Your task to perform on an android device: Go to Android settings Image 0: 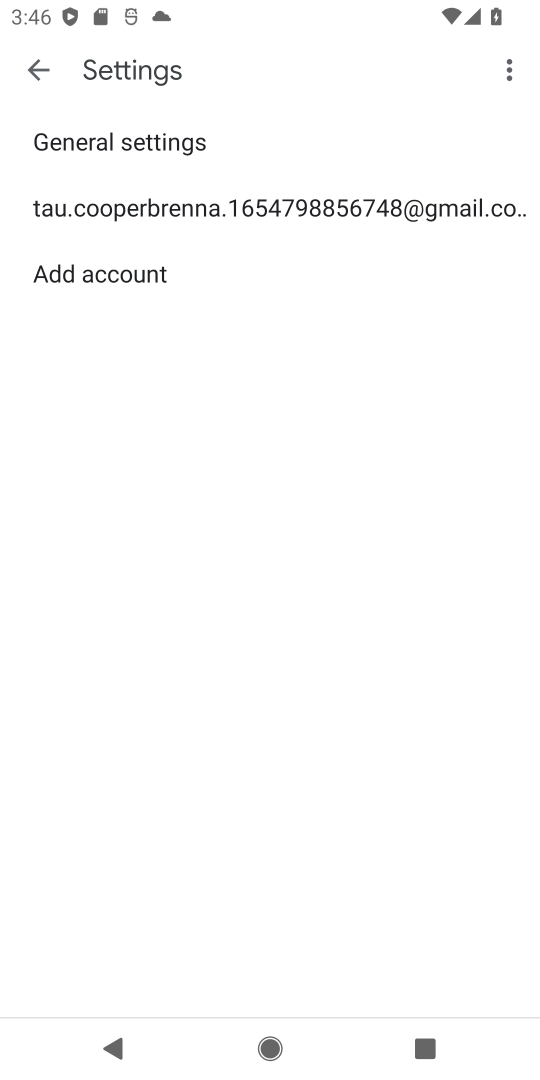
Step 0: press home button
Your task to perform on an android device: Go to Android settings Image 1: 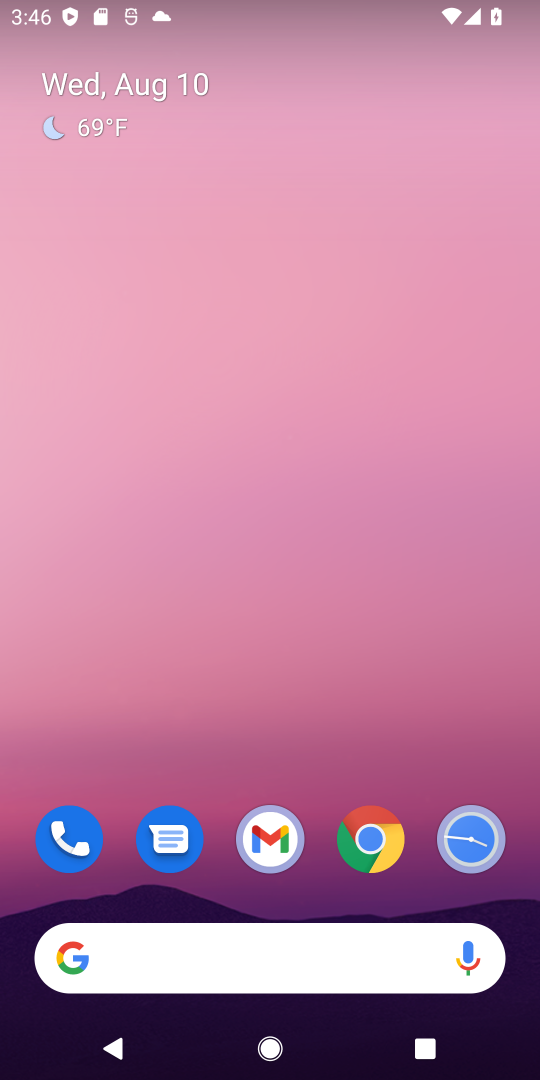
Step 1: drag from (248, 724) to (298, 3)
Your task to perform on an android device: Go to Android settings Image 2: 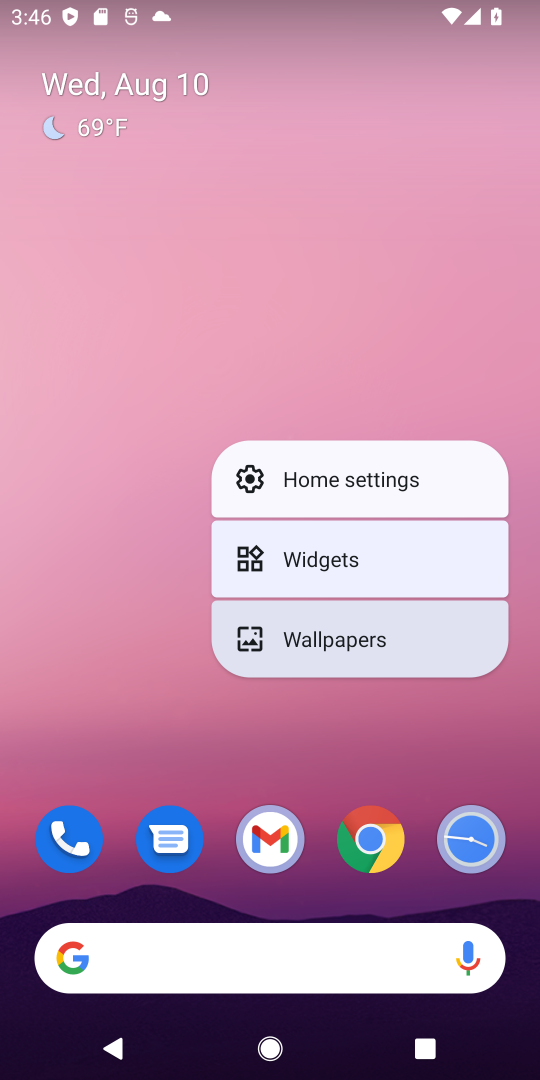
Step 2: click (166, 458)
Your task to perform on an android device: Go to Android settings Image 3: 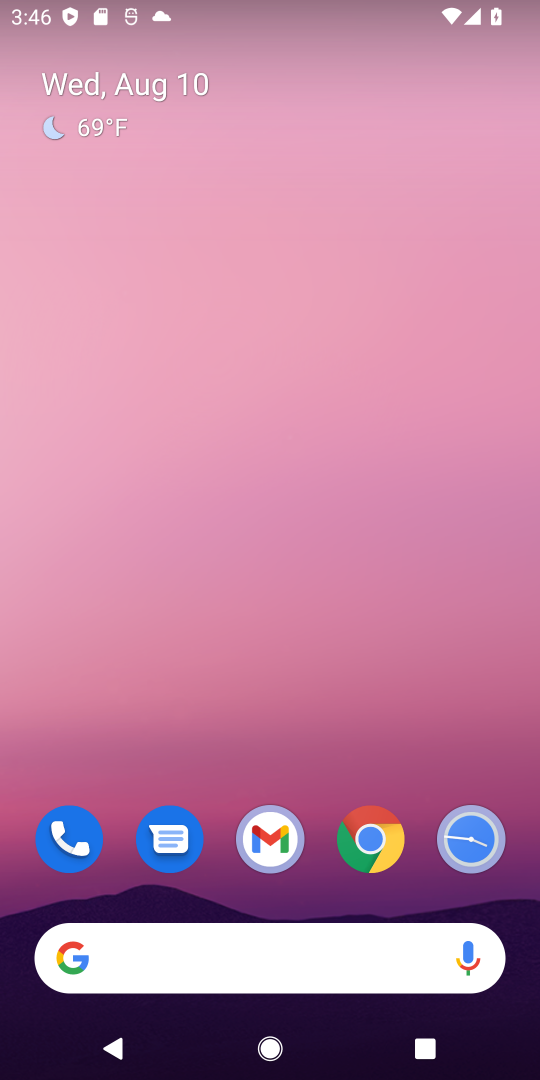
Step 3: drag from (227, 741) to (271, 0)
Your task to perform on an android device: Go to Android settings Image 4: 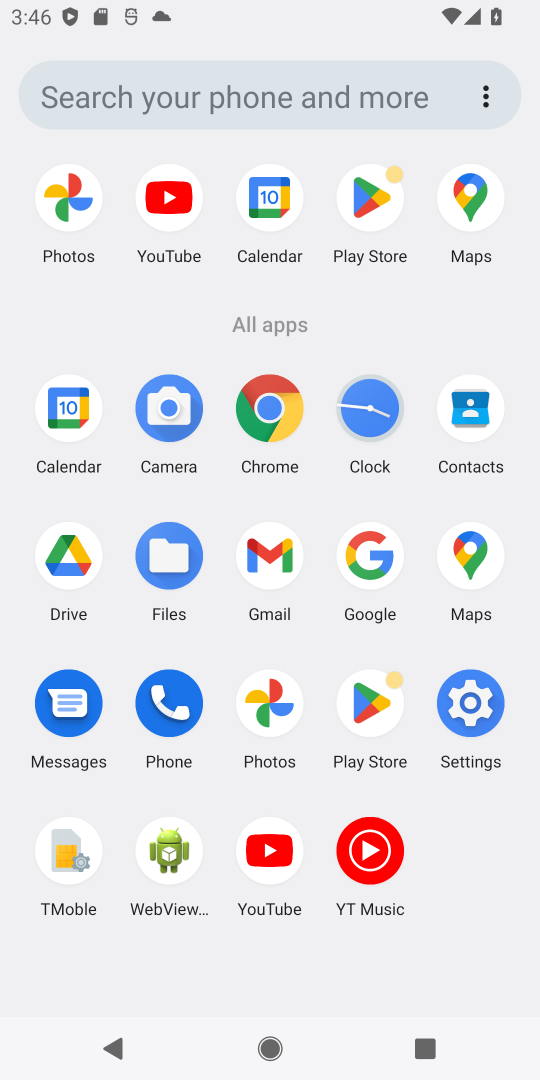
Step 4: click (482, 711)
Your task to perform on an android device: Go to Android settings Image 5: 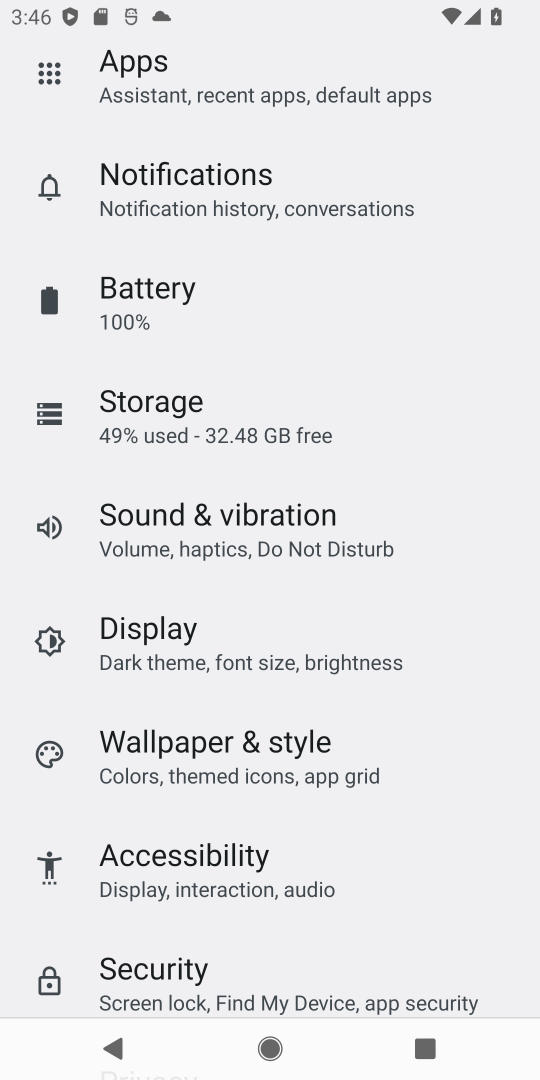
Step 5: drag from (318, 809) to (386, 0)
Your task to perform on an android device: Go to Android settings Image 6: 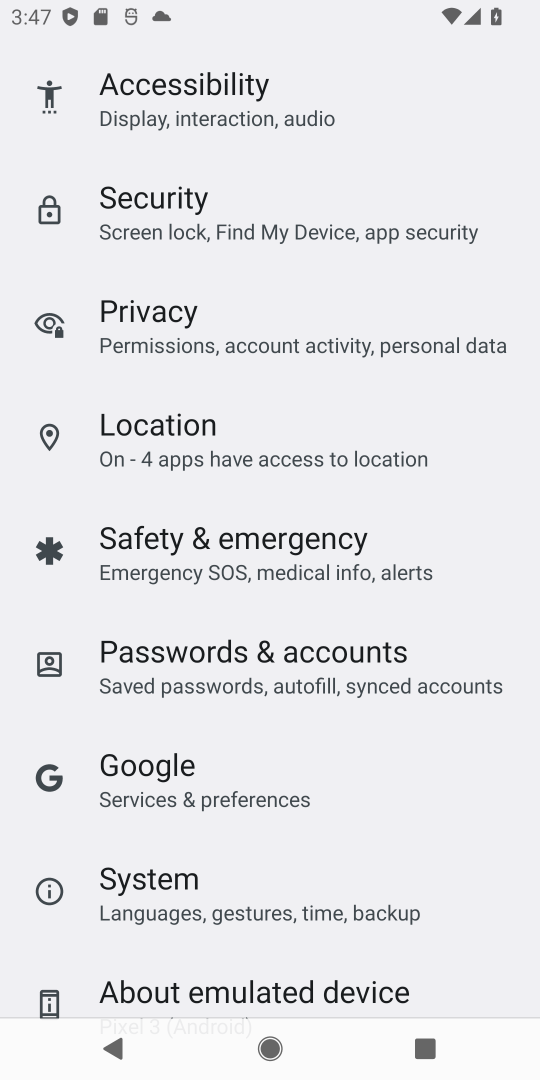
Step 6: drag from (249, 868) to (281, 419)
Your task to perform on an android device: Go to Android settings Image 7: 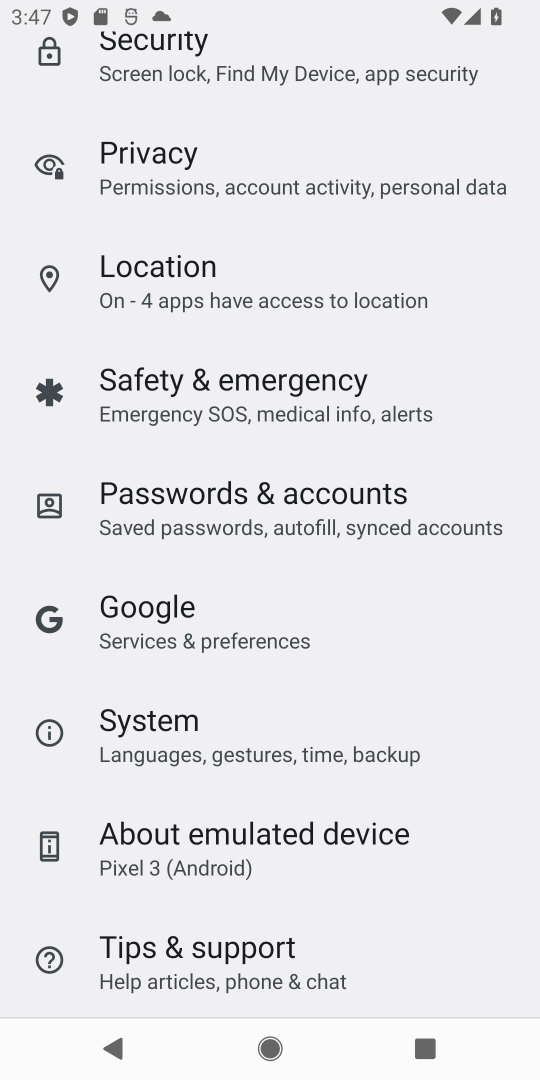
Step 7: click (254, 837)
Your task to perform on an android device: Go to Android settings Image 8: 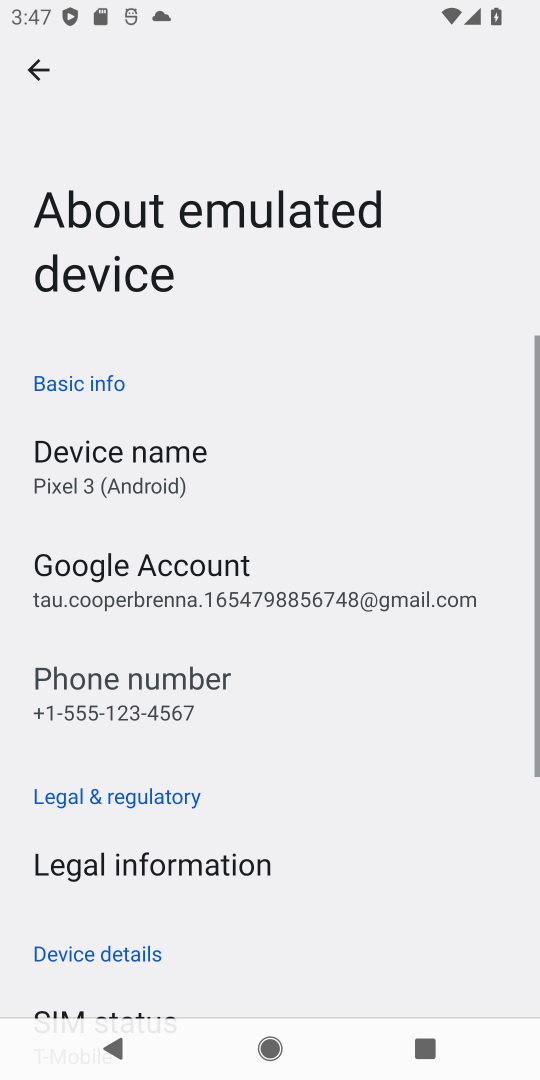
Step 8: task complete